Your task to perform on an android device: Open Yahoo.com Image 0: 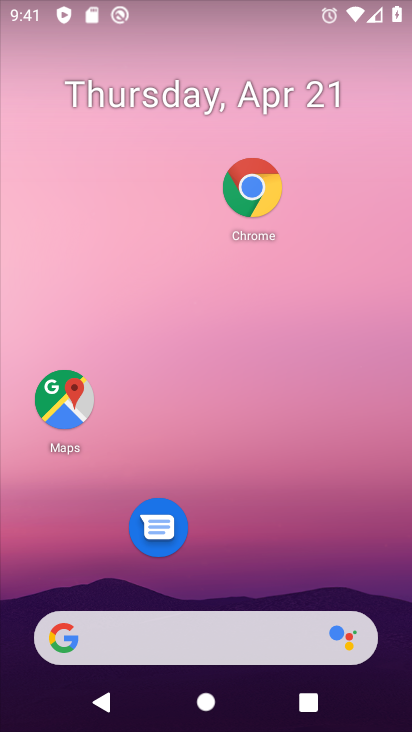
Step 0: drag from (295, 569) to (333, 74)
Your task to perform on an android device: Open Yahoo.com Image 1: 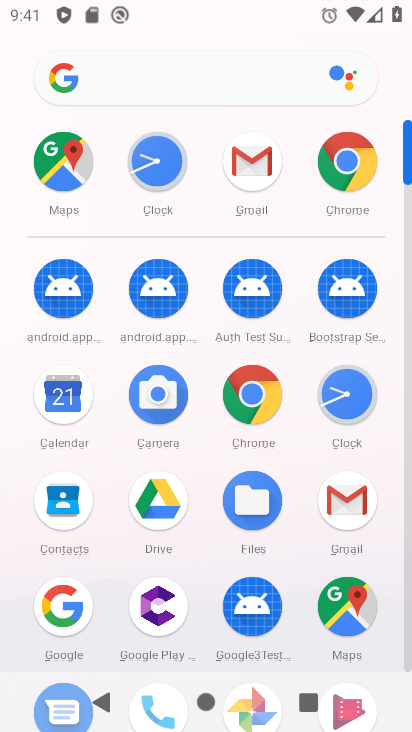
Step 1: click (349, 182)
Your task to perform on an android device: Open Yahoo.com Image 2: 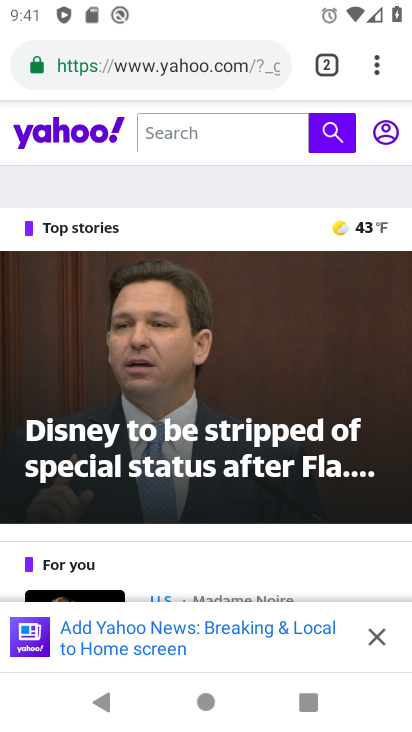
Step 2: task complete